Your task to perform on an android device: Go to accessibility settings Image 0: 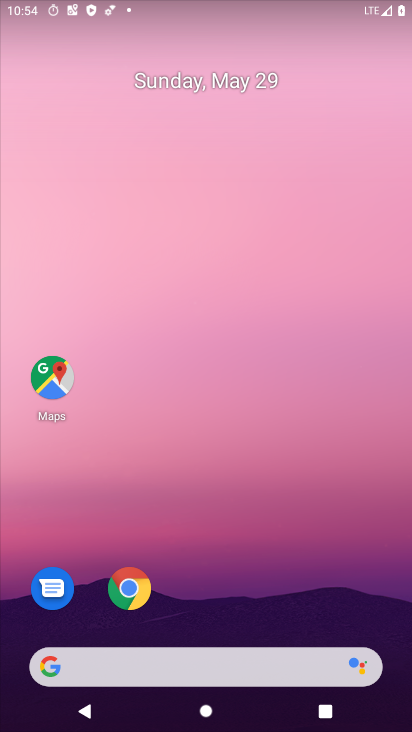
Step 0: drag from (221, 580) to (157, 149)
Your task to perform on an android device: Go to accessibility settings Image 1: 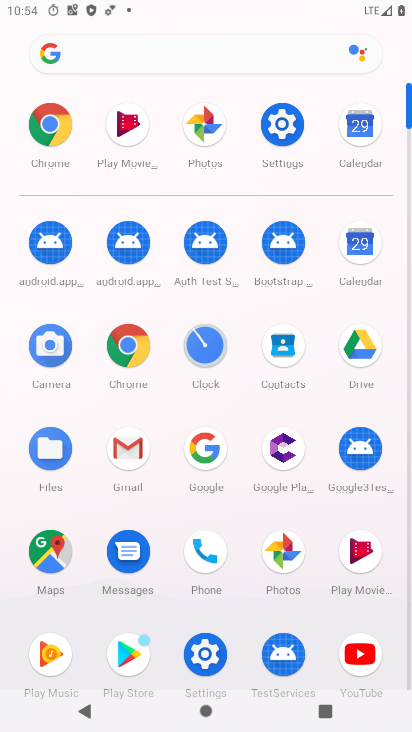
Step 1: click (209, 661)
Your task to perform on an android device: Go to accessibility settings Image 2: 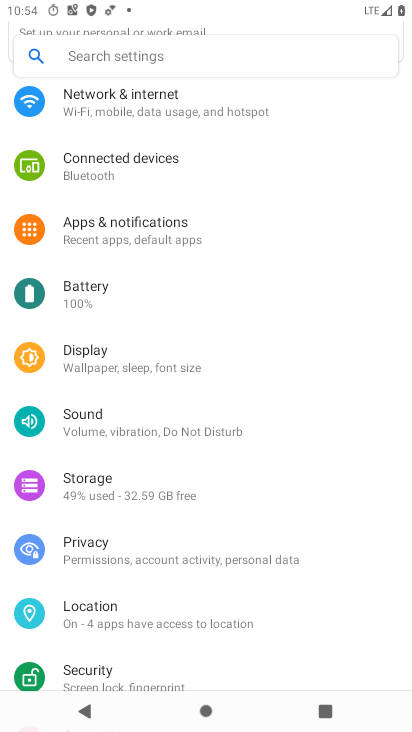
Step 2: drag from (187, 559) to (160, 111)
Your task to perform on an android device: Go to accessibility settings Image 3: 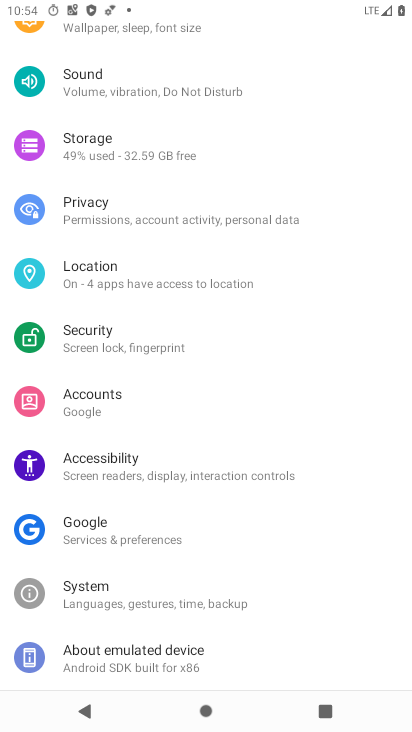
Step 3: click (162, 480)
Your task to perform on an android device: Go to accessibility settings Image 4: 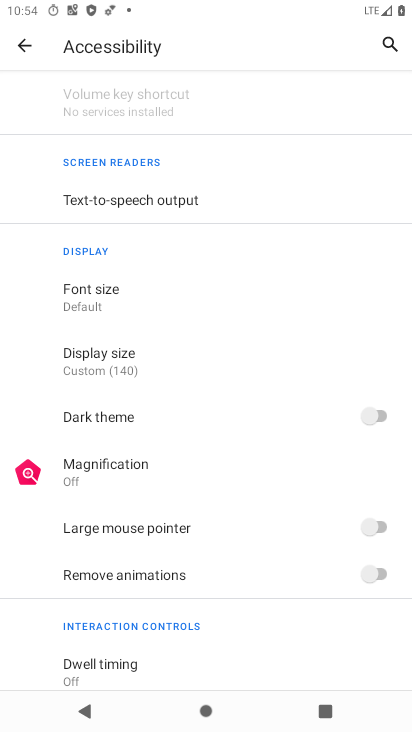
Step 4: task complete